Your task to perform on an android device: empty trash in the gmail app Image 0: 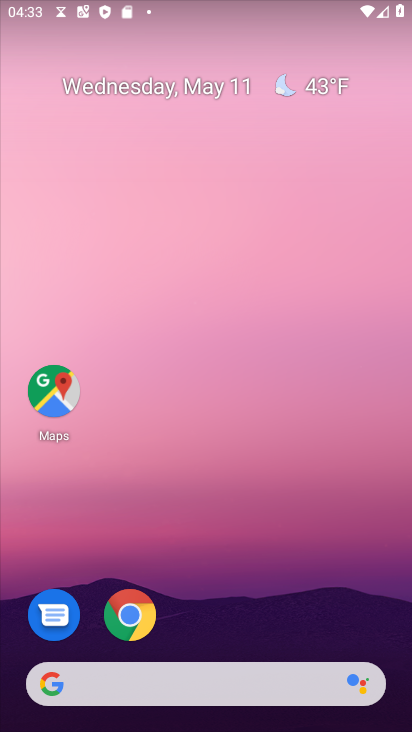
Step 0: drag from (245, 565) to (217, 54)
Your task to perform on an android device: empty trash in the gmail app Image 1: 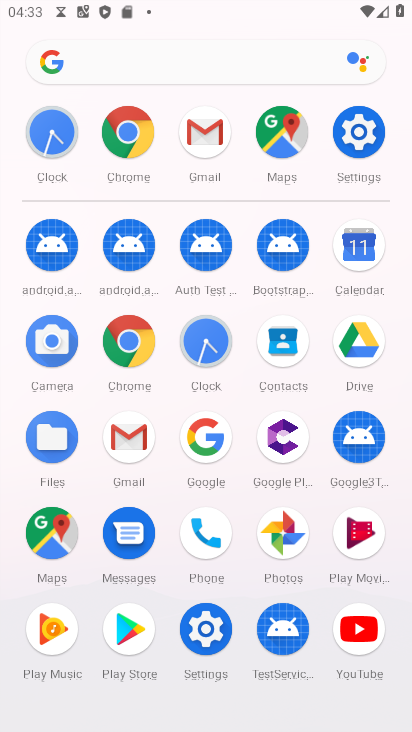
Step 1: drag from (14, 567) to (17, 203)
Your task to perform on an android device: empty trash in the gmail app Image 2: 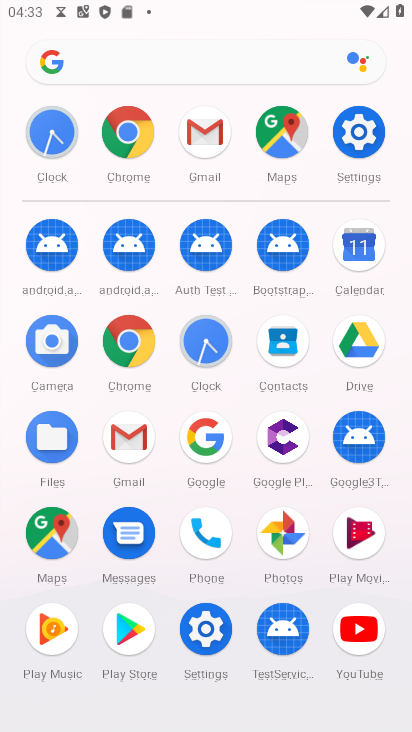
Step 2: click (129, 432)
Your task to perform on an android device: empty trash in the gmail app Image 3: 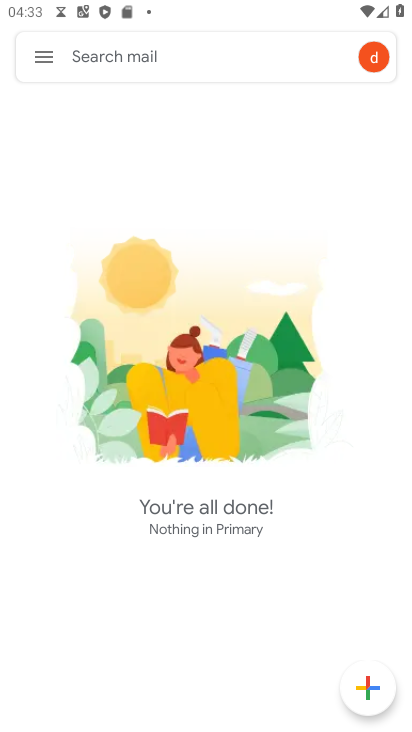
Step 3: click (53, 52)
Your task to perform on an android device: empty trash in the gmail app Image 4: 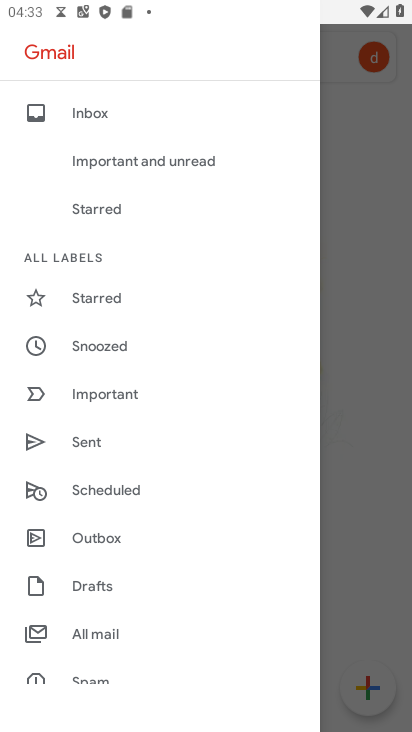
Step 4: drag from (158, 590) to (204, 104)
Your task to perform on an android device: empty trash in the gmail app Image 5: 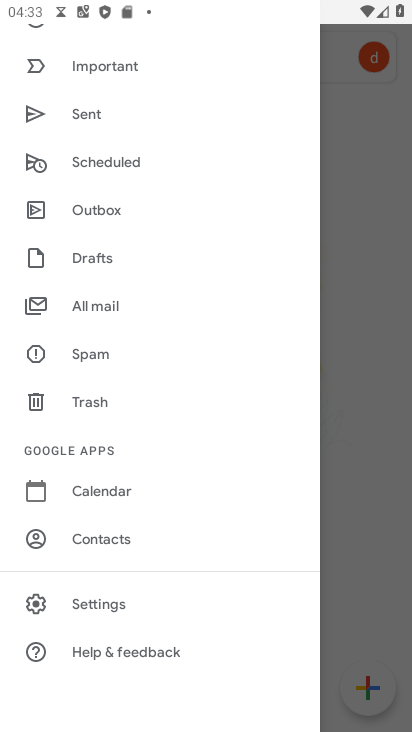
Step 5: click (88, 401)
Your task to perform on an android device: empty trash in the gmail app Image 6: 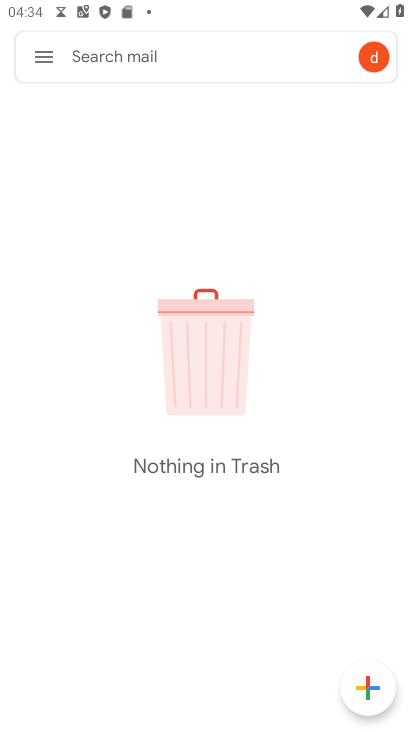
Step 6: task complete